Your task to perform on an android device: add a contact in the contacts app Image 0: 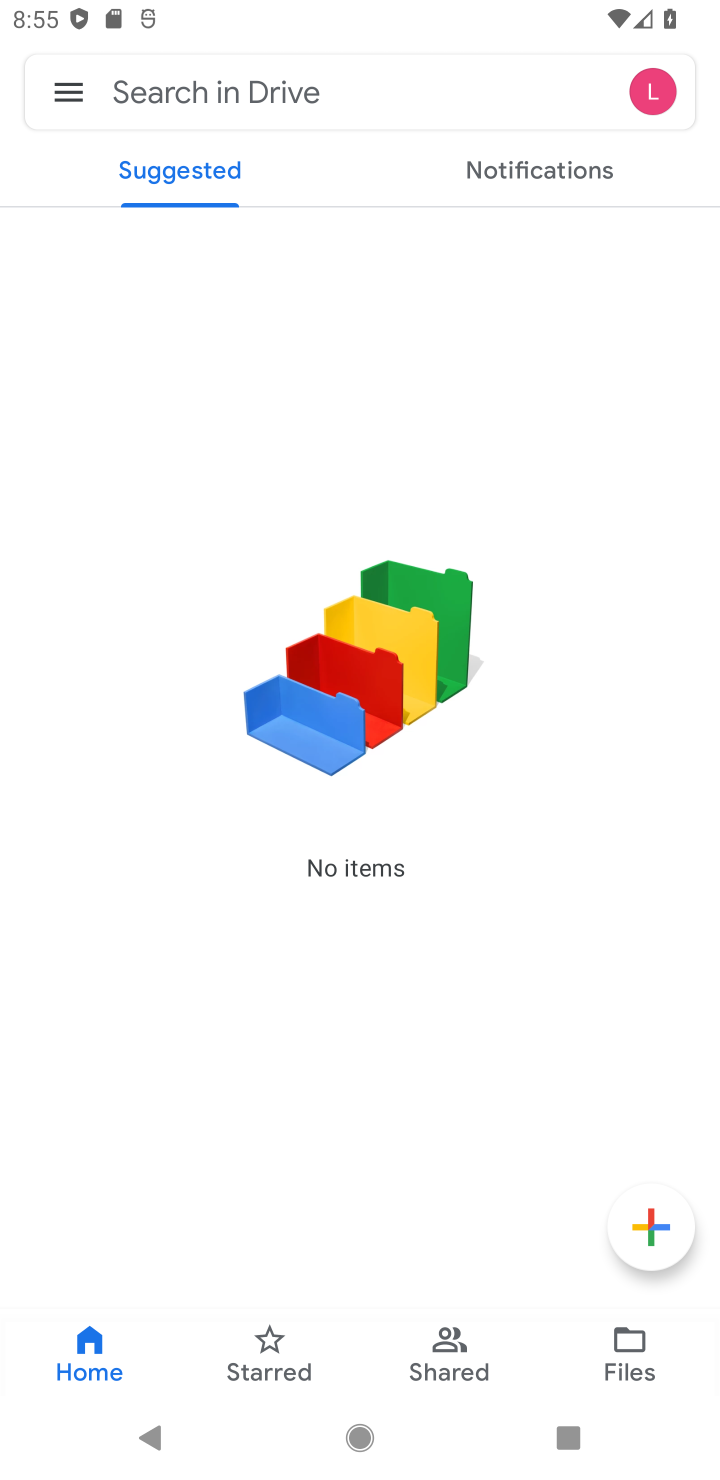
Step 0: task complete